Your task to perform on an android device: change the clock display to show seconds Image 0: 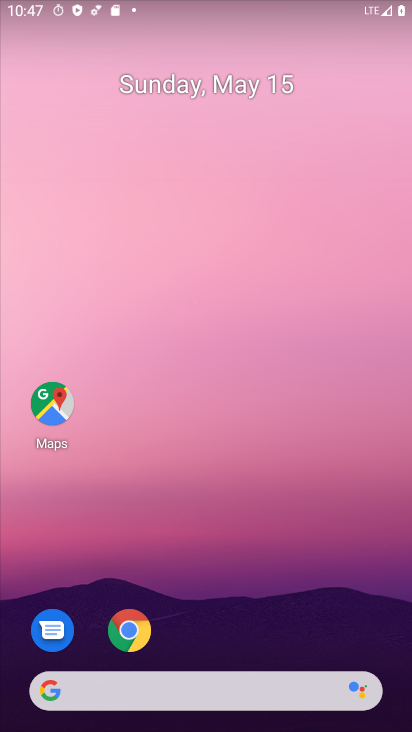
Step 0: drag from (186, 627) to (246, 94)
Your task to perform on an android device: change the clock display to show seconds Image 1: 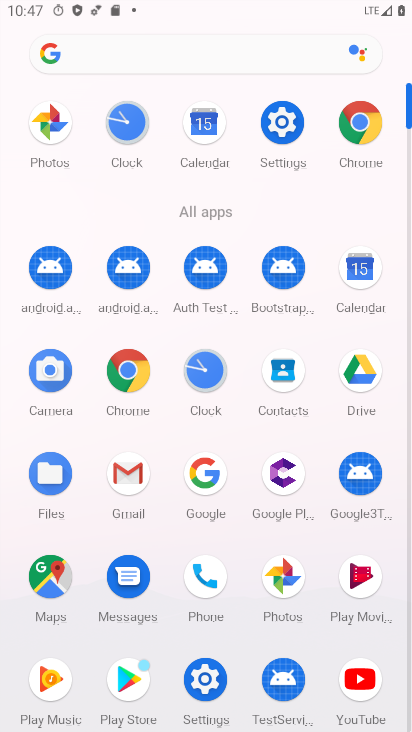
Step 1: click (207, 366)
Your task to perform on an android device: change the clock display to show seconds Image 2: 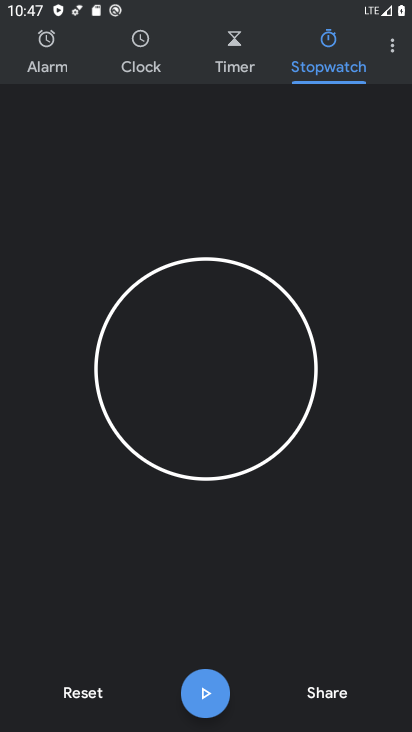
Step 2: drag from (390, 52) to (335, 114)
Your task to perform on an android device: change the clock display to show seconds Image 3: 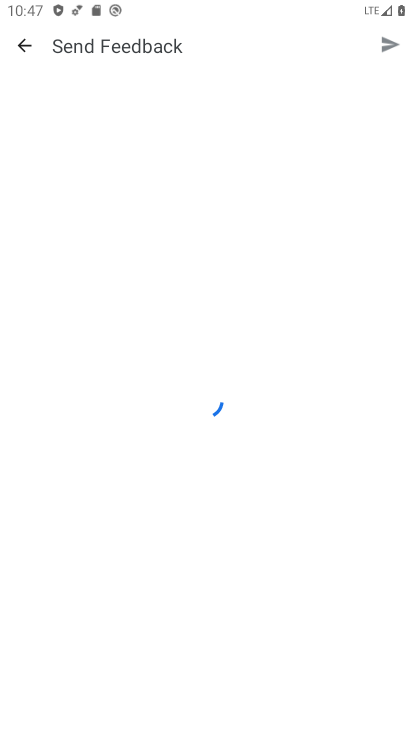
Step 3: click (393, 43)
Your task to perform on an android device: change the clock display to show seconds Image 4: 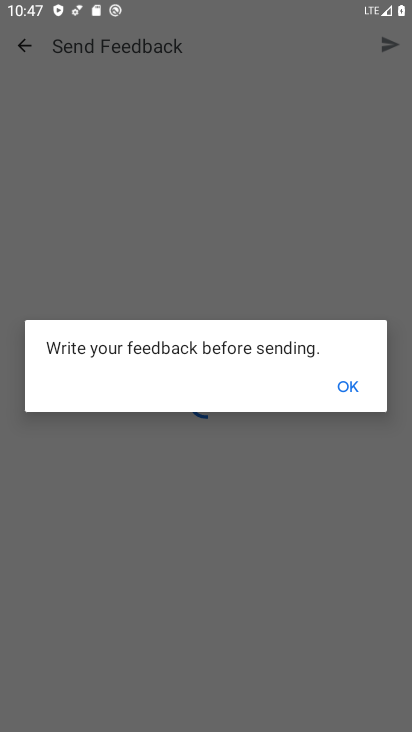
Step 4: click (332, 387)
Your task to perform on an android device: change the clock display to show seconds Image 5: 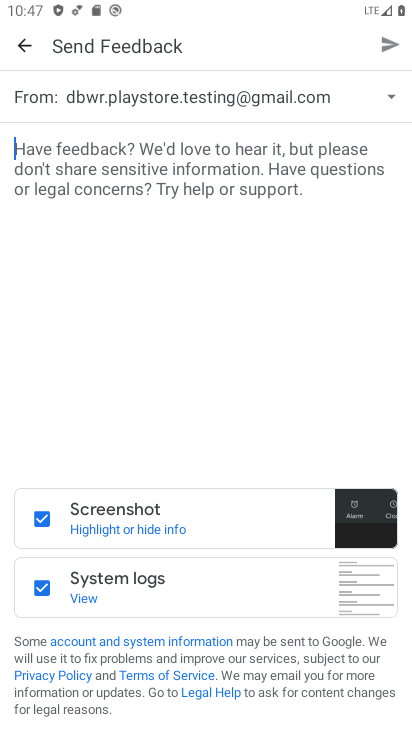
Step 5: click (24, 46)
Your task to perform on an android device: change the clock display to show seconds Image 6: 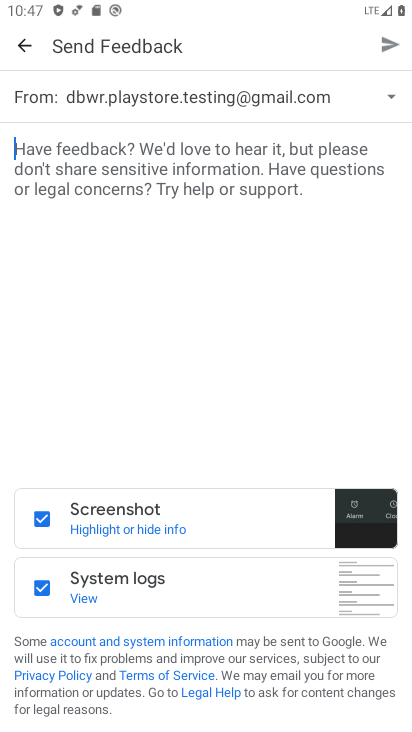
Step 6: click (30, 37)
Your task to perform on an android device: change the clock display to show seconds Image 7: 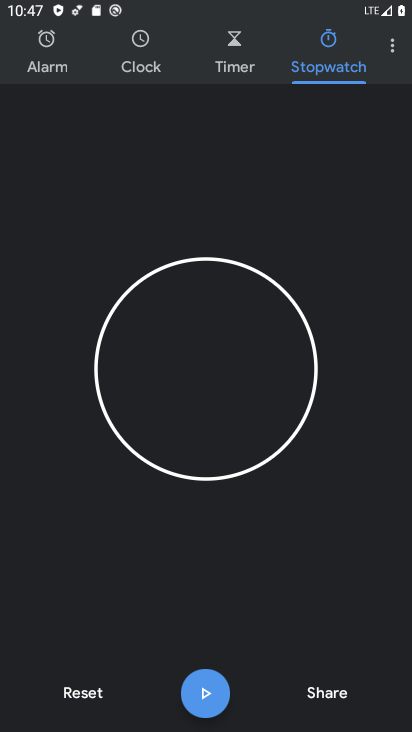
Step 7: click (382, 45)
Your task to perform on an android device: change the clock display to show seconds Image 8: 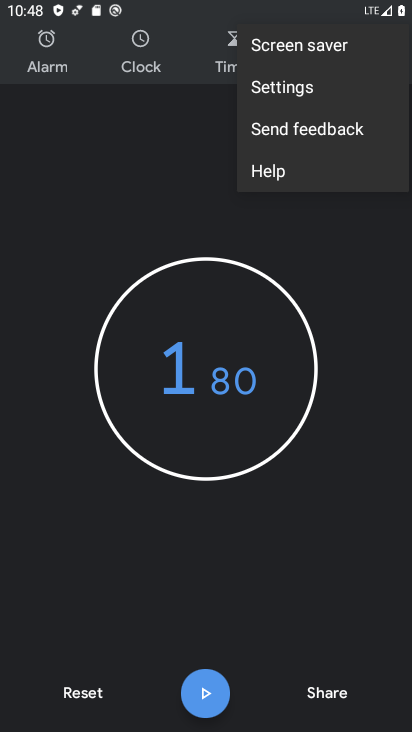
Step 8: click (309, 83)
Your task to perform on an android device: change the clock display to show seconds Image 9: 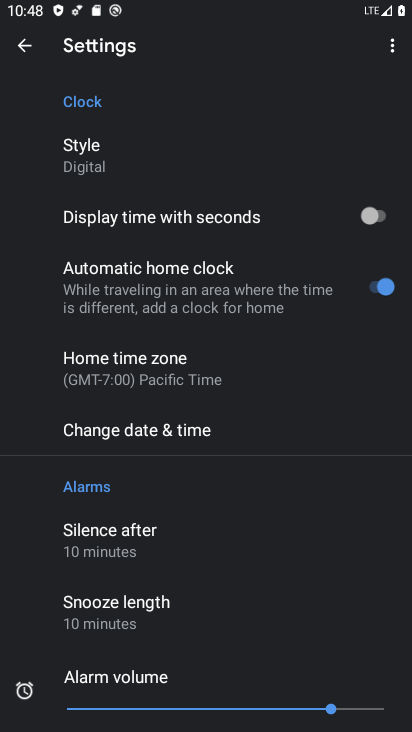
Step 9: click (382, 215)
Your task to perform on an android device: change the clock display to show seconds Image 10: 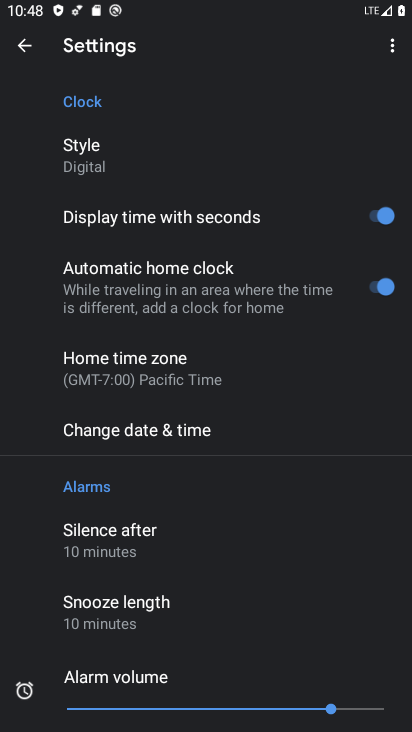
Step 10: task complete